Your task to perform on an android device: read, delete, or share a saved page in the chrome app Image 0: 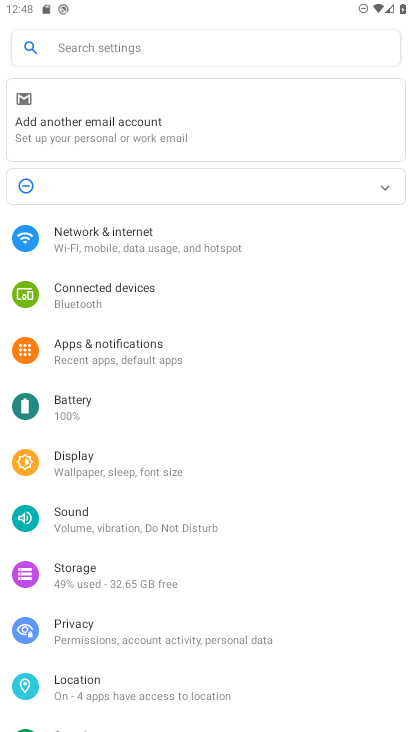
Step 0: press home button
Your task to perform on an android device: read, delete, or share a saved page in the chrome app Image 1: 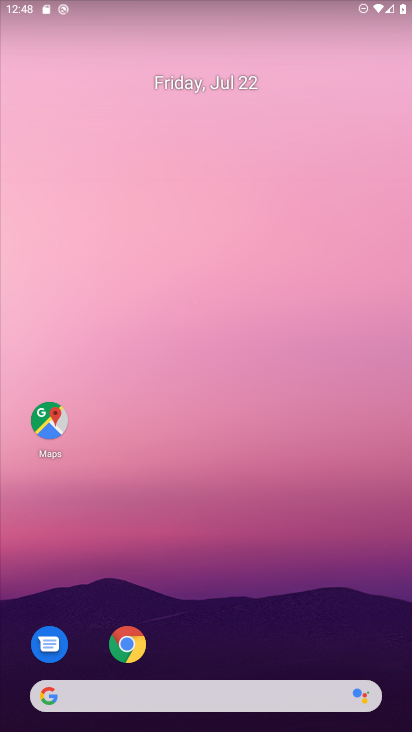
Step 1: click (133, 628)
Your task to perform on an android device: read, delete, or share a saved page in the chrome app Image 2: 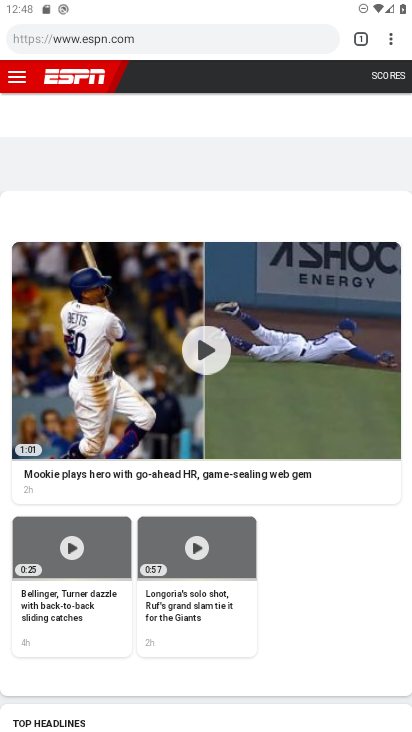
Step 2: click (400, 42)
Your task to perform on an android device: read, delete, or share a saved page in the chrome app Image 3: 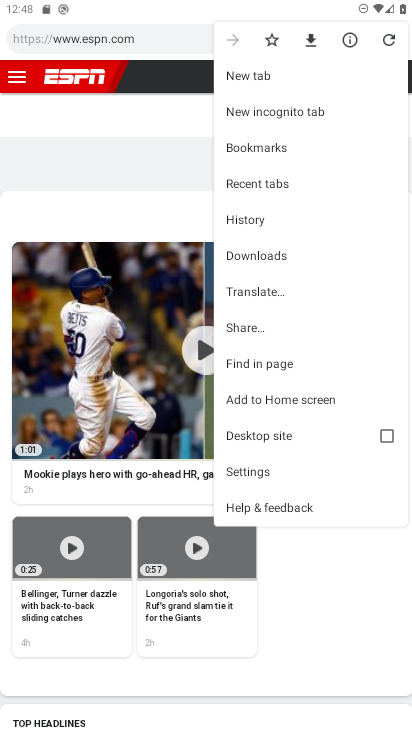
Step 3: click (257, 247)
Your task to perform on an android device: read, delete, or share a saved page in the chrome app Image 4: 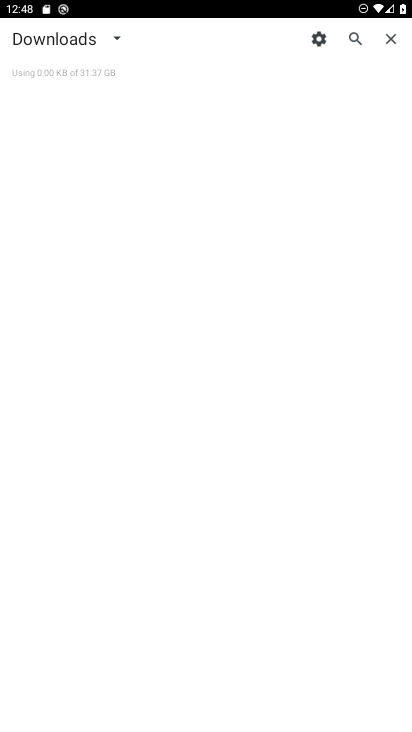
Step 4: task complete